Your task to perform on an android device: toggle javascript in the chrome app Image 0: 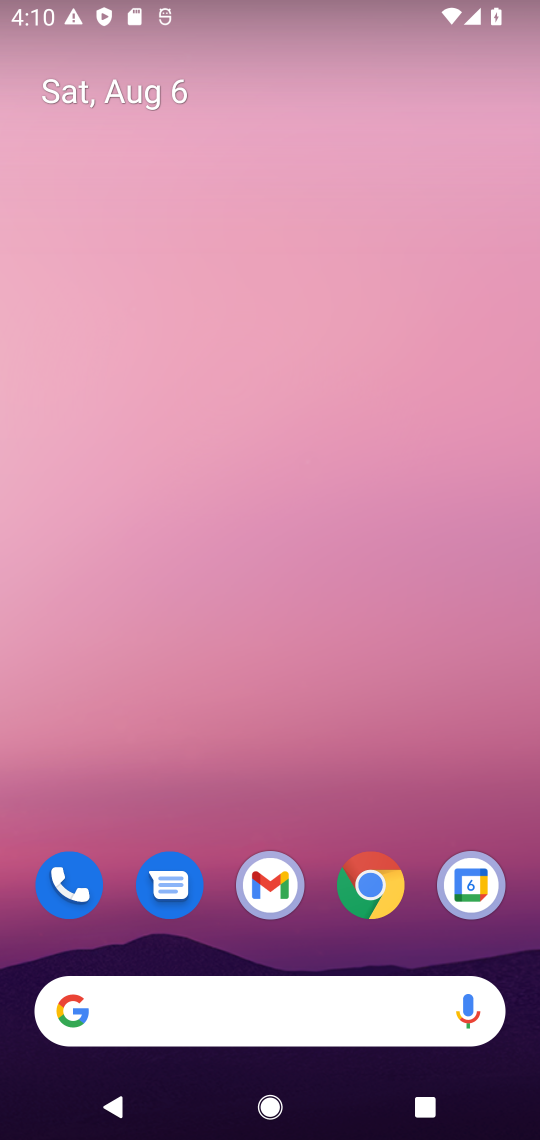
Step 0: click (360, 892)
Your task to perform on an android device: toggle javascript in the chrome app Image 1: 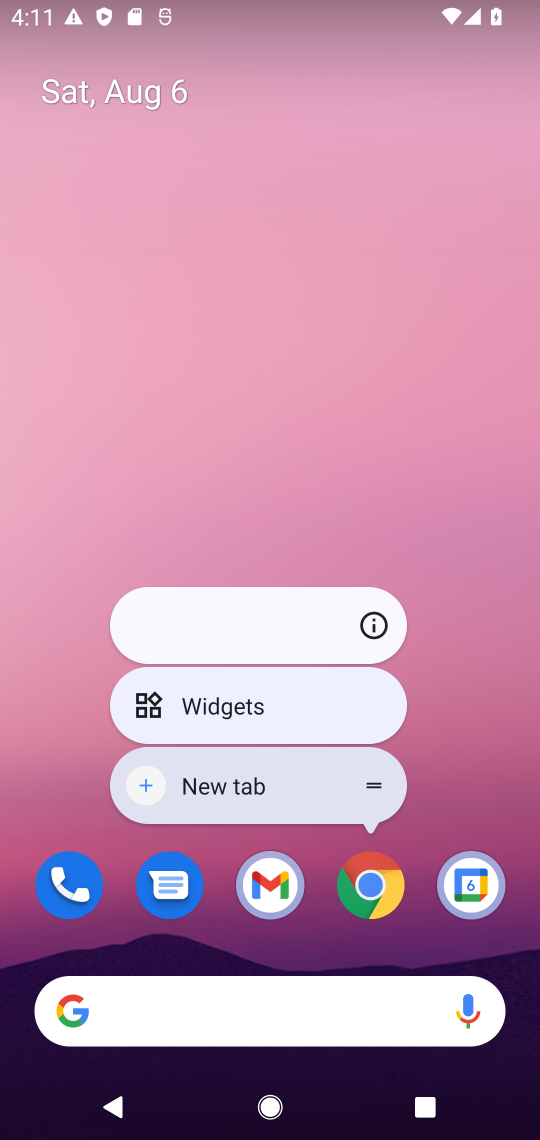
Step 1: drag from (344, 523) to (329, 136)
Your task to perform on an android device: toggle javascript in the chrome app Image 2: 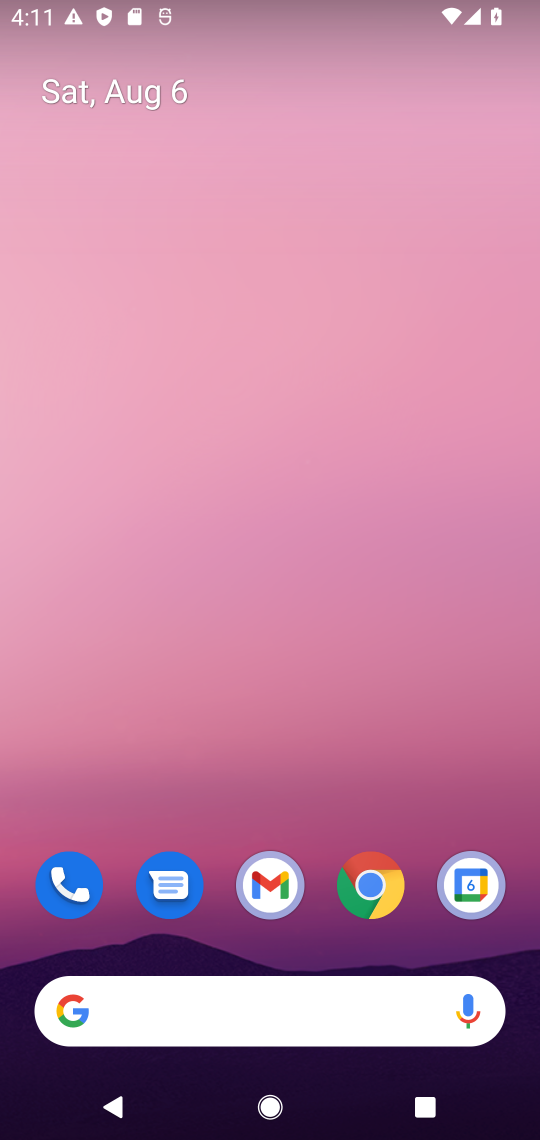
Step 2: drag from (229, 710) to (255, 262)
Your task to perform on an android device: toggle javascript in the chrome app Image 3: 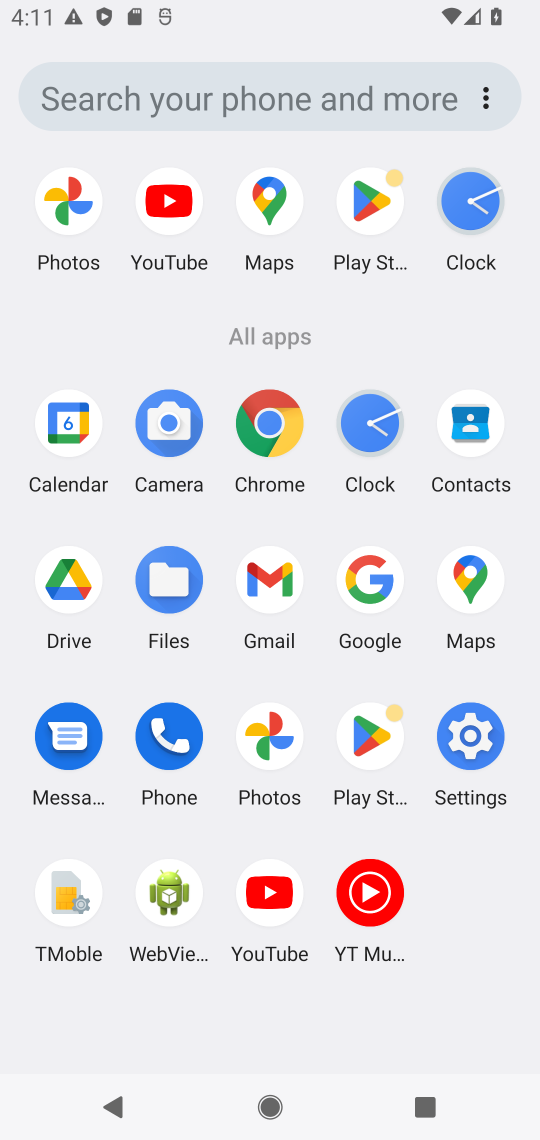
Step 3: click (270, 434)
Your task to perform on an android device: toggle javascript in the chrome app Image 4: 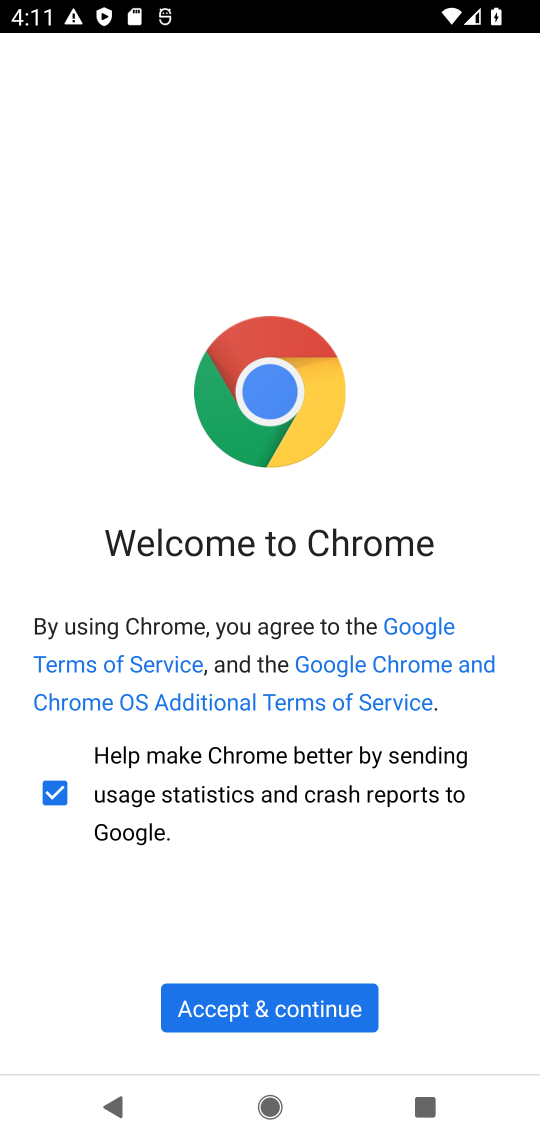
Step 4: click (278, 1019)
Your task to perform on an android device: toggle javascript in the chrome app Image 5: 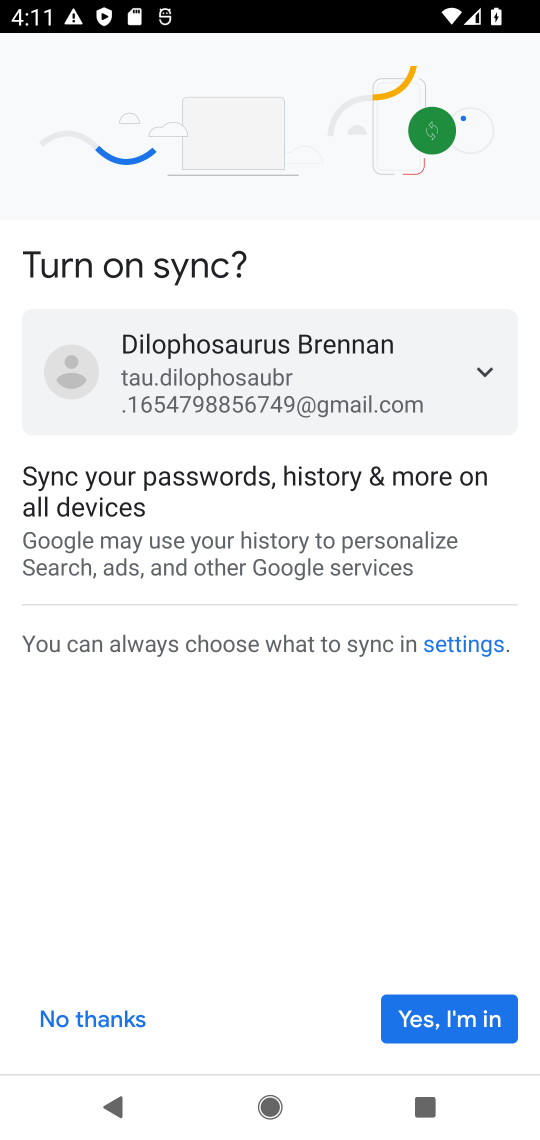
Step 5: click (426, 1016)
Your task to perform on an android device: toggle javascript in the chrome app Image 6: 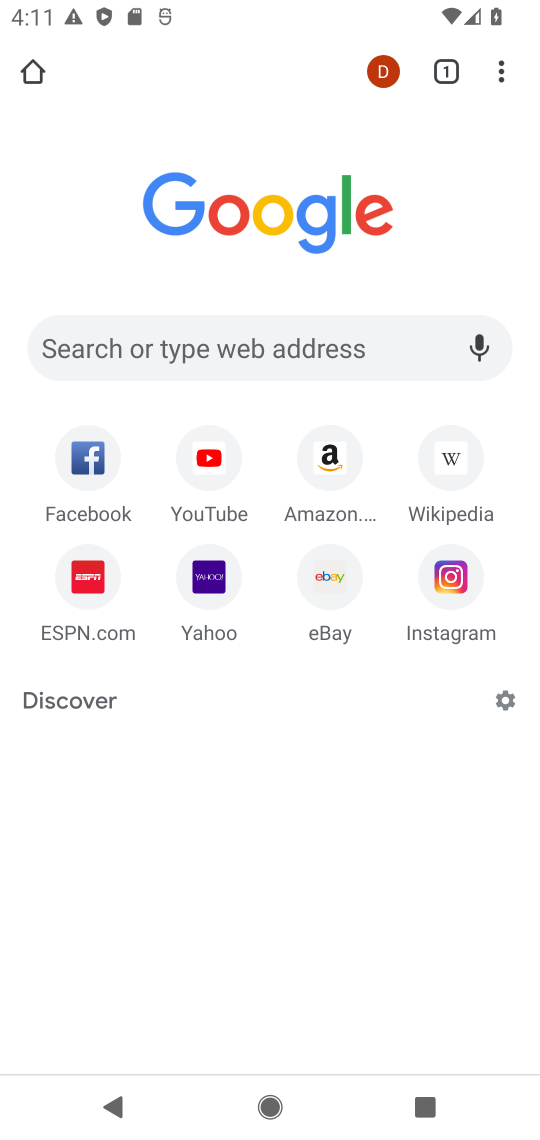
Step 6: task complete